Your task to perform on an android device: Go to eBay Image 0: 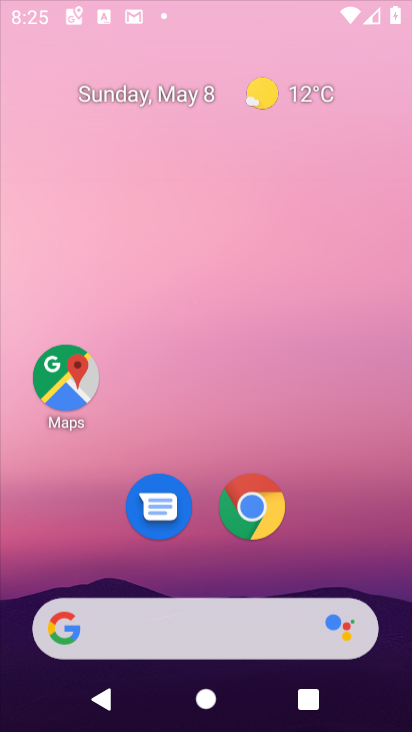
Step 0: click (288, 129)
Your task to perform on an android device: Go to eBay Image 1: 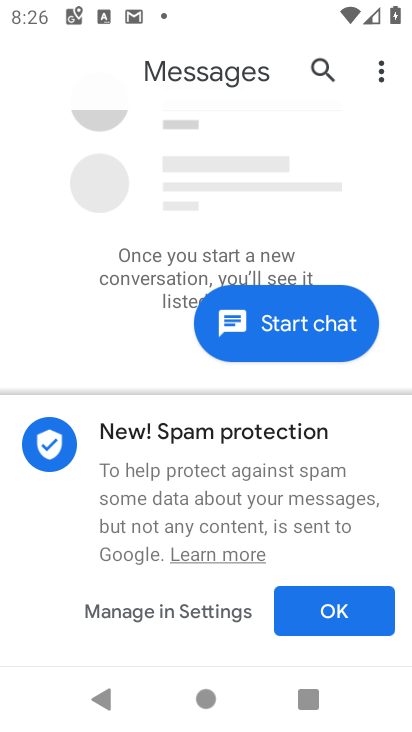
Step 1: press home button
Your task to perform on an android device: Go to eBay Image 2: 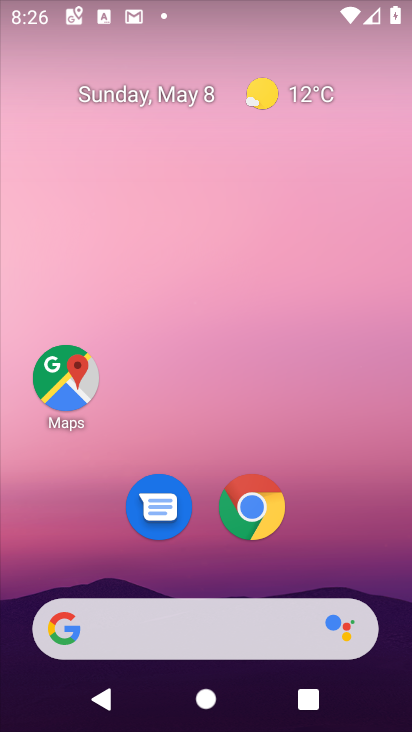
Step 2: click (210, 638)
Your task to perform on an android device: Go to eBay Image 3: 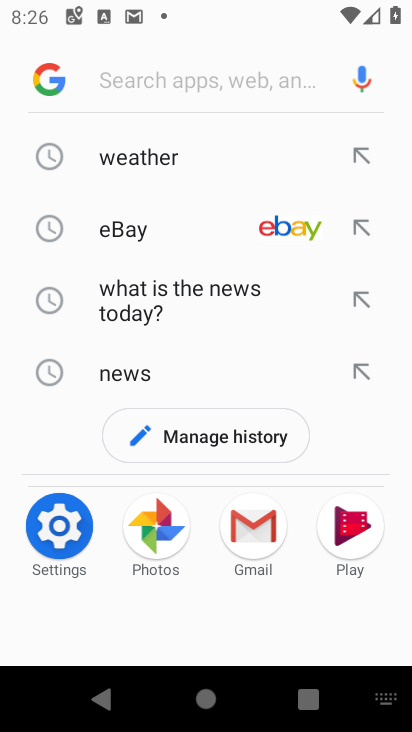
Step 3: click (167, 229)
Your task to perform on an android device: Go to eBay Image 4: 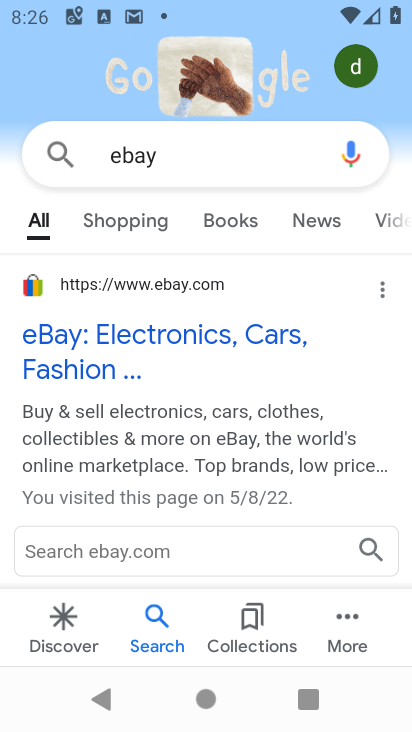
Step 4: click (157, 286)
Your task to perform on an android device: Go to eBay Image 5: 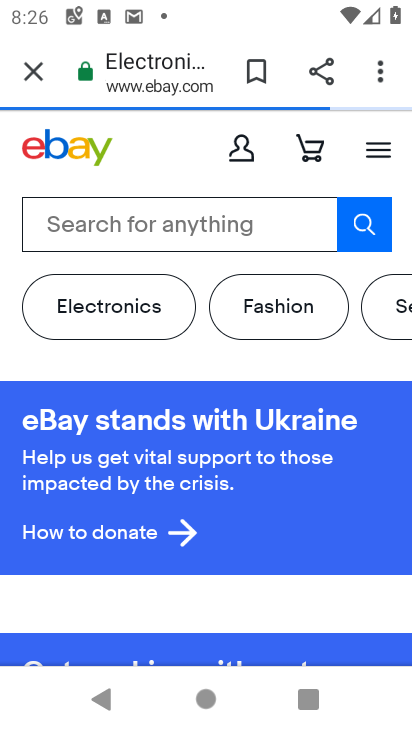
Step 5: task complete